Your task to perform on an android device: clear all cookies in the chrome app Image 0: 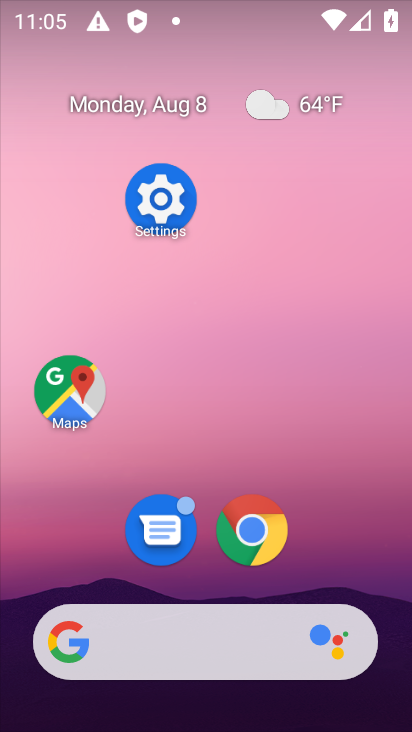
Step 0: drag from (272, 610) to (181, 1)
Your task to perform on an android device: clear all cookies in the chrome app Image 1: 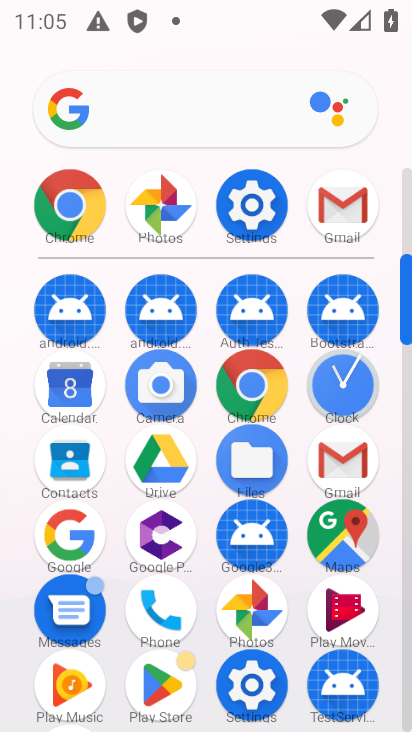
Step 1: click (56, 210)
Your task to perform on an android device: clear all cookies in the chrome app Image 2: 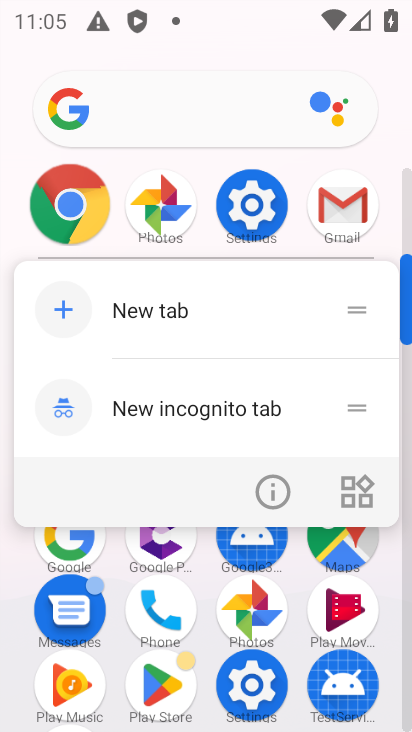
Step 2: click (60, 216)
Your task to perform on an android device: clear all cookies in the chrome app Image 3: 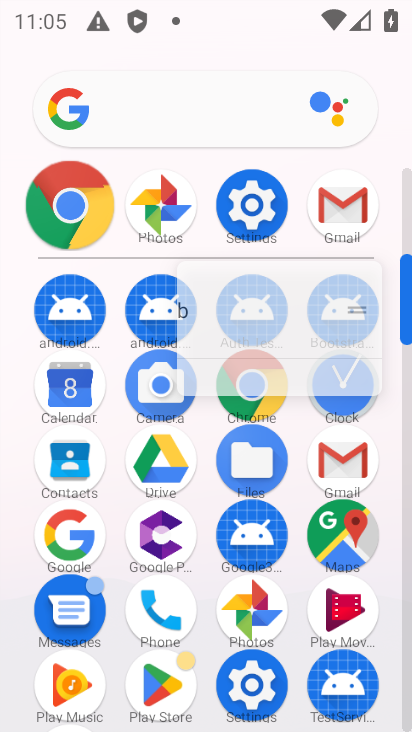
Step 3: click (70, 214)
Your task to perform on an android device: clear all cookies in the chrome app Image 4: 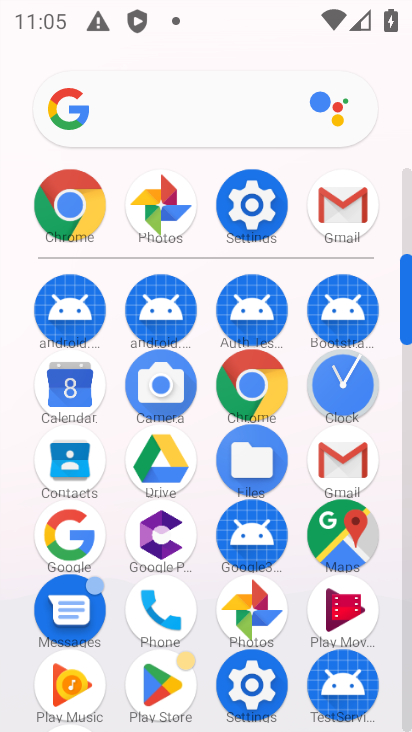
Step 4: click (73, 214)
Your task to perform on an android device: clear all cookies in the chrome app Image 5: 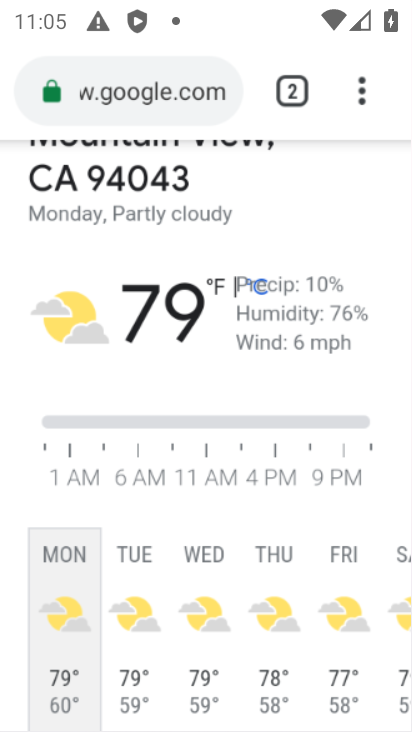
Step 5: click (68, 221)
Your task to perform on an android device: clear all cookies in the chrome app Image 6: 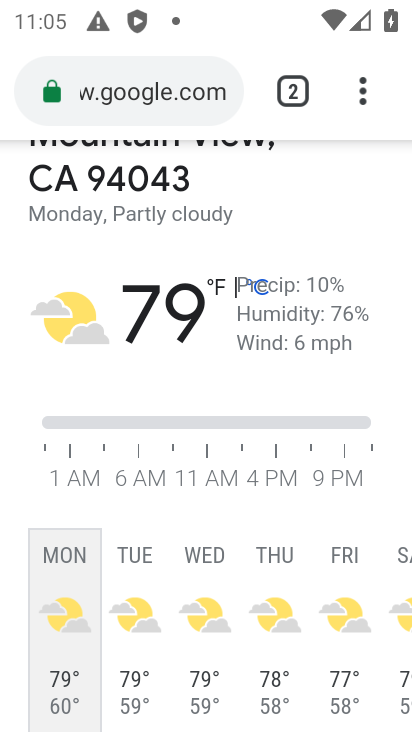
Step 6: press back button
Your task to perform on an android device: clear all cookies in the chrome app Image 7: 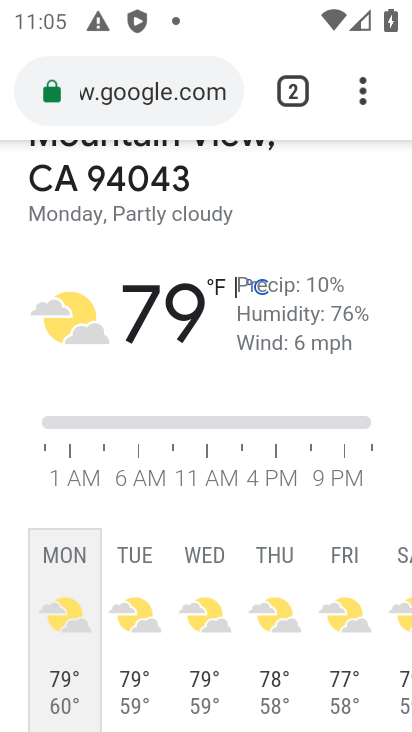
Step 7: press back button
Your task to perform on an android device: clear all cookies in the chrome app Image 8: 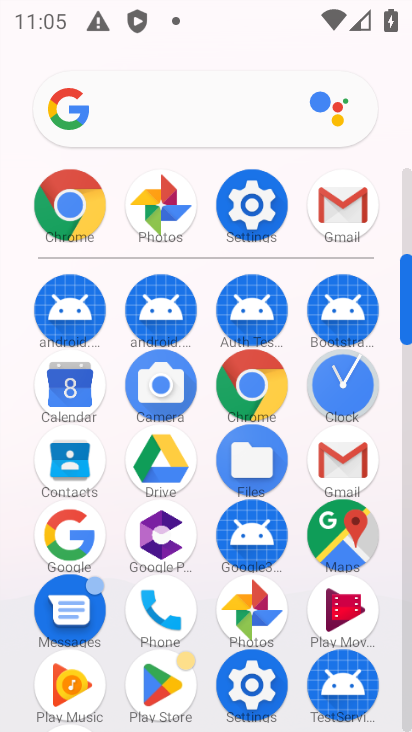
Step 8: click (68, 191)
Your task to perform on an android device: clear all cookies in the chrome app Image 9: 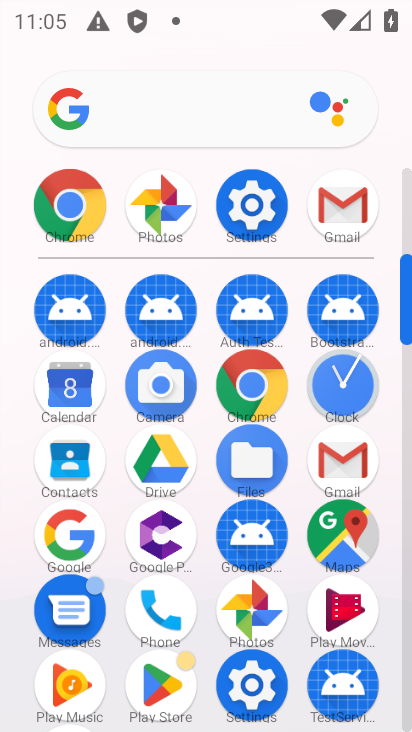
Step 9: click (68, 198)
Your task to perform on an android device: clear all cookies in the chrome app Image 10: 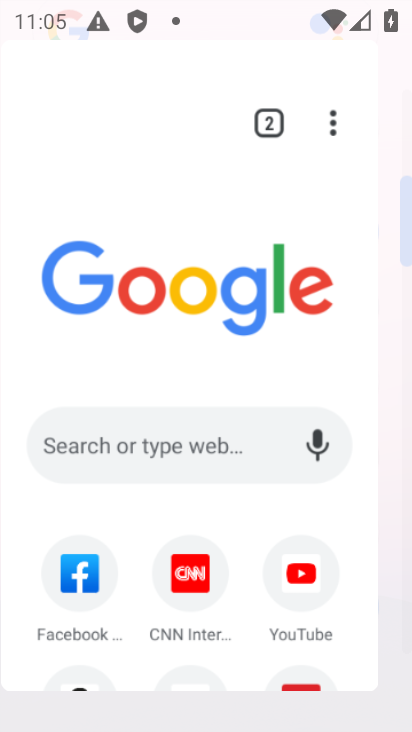
Step 10: click (68, 198)
Your task to perform on an android device: clear all cookies in the chrome app Image 11: 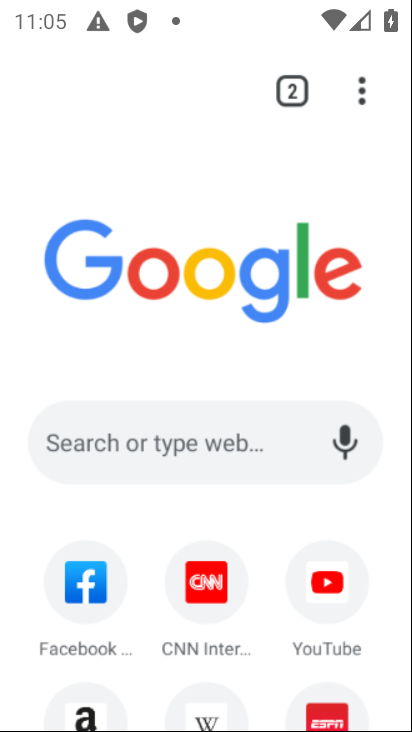
Step 11: click (73, 200)
Your task to perform on an android device: clear all cookies in the chrome app Image 12: 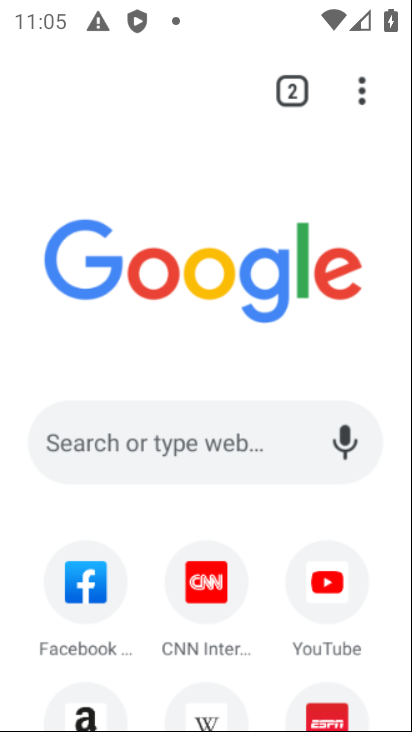
Step 12: click (78, 201)
Your task to perform on an android device: clear all cookies in the chrome app Image 13: 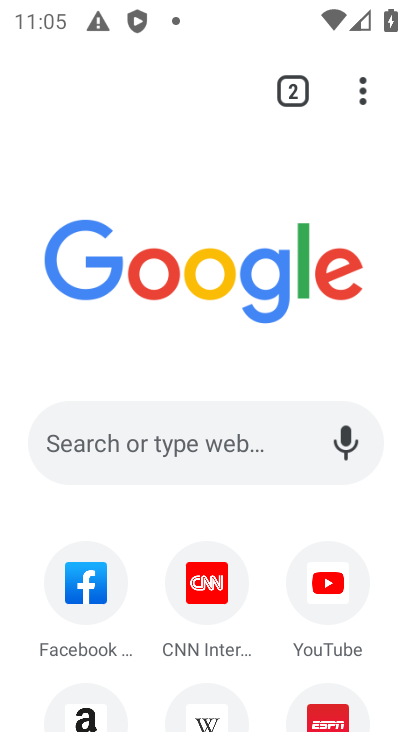
Step 13: click (80, 441)
Your task to perform on an android device: clear all cookies in the chrome app Image 14: 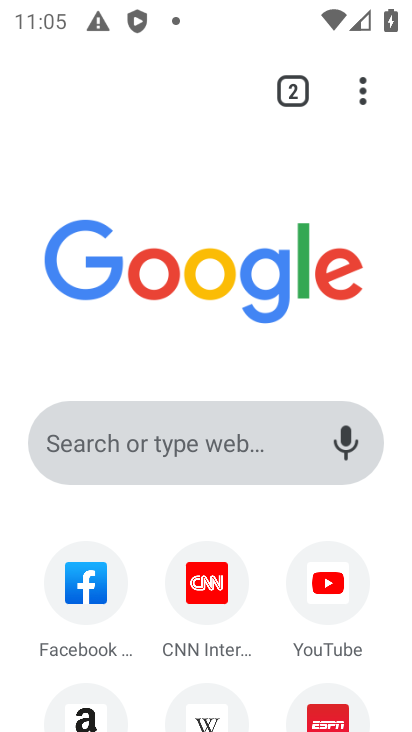
Step 14: click (80, 441)
Your task to perform on an android device: clear all cookies in the chrome app Image 15: 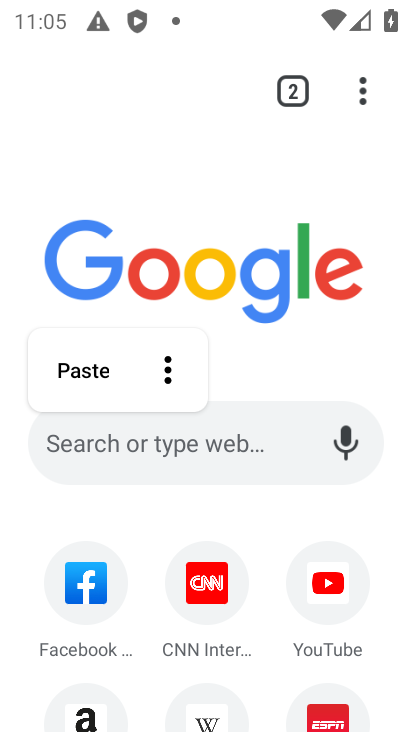
Step 15: drag from (354, 106) to (71, 576)
Your task to perform on an android device: clear all cookies in the chrome app Image 16: 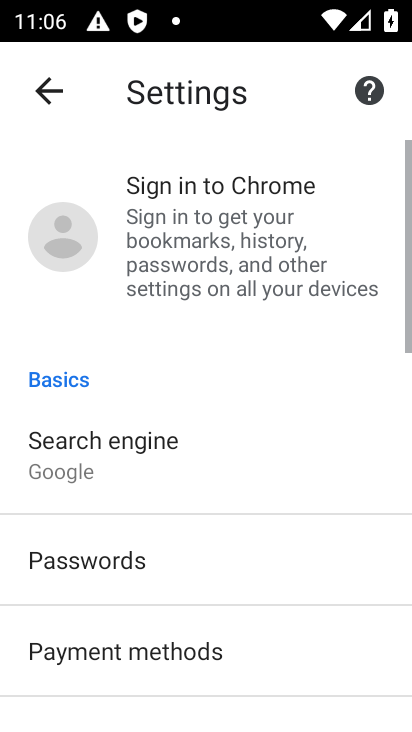
Step 16: drag from (217, 600) to (121, 75)
Your task to perform on an android device: clear all cookies in the chrome app Image 17: 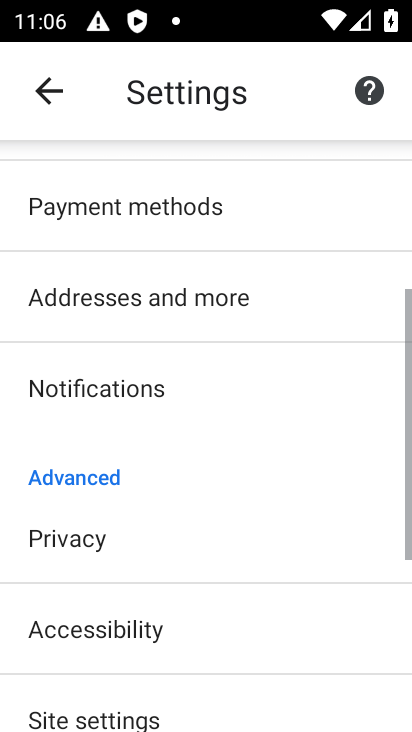
Step 17: drag from (213, 319) to (184, 110)
Your task to perform on an android device: clear all cookies in the chrome app Image 18: 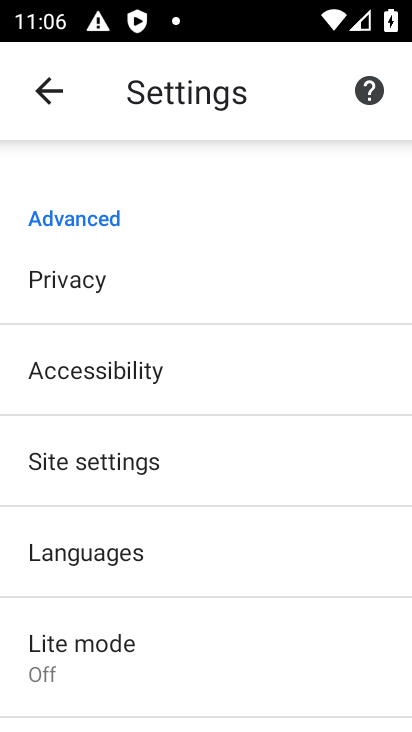
Step 18: drag from (173, 271) to (181, 541)
Your task to perform on an android device: clear all cookies in the chrome app Image 19: 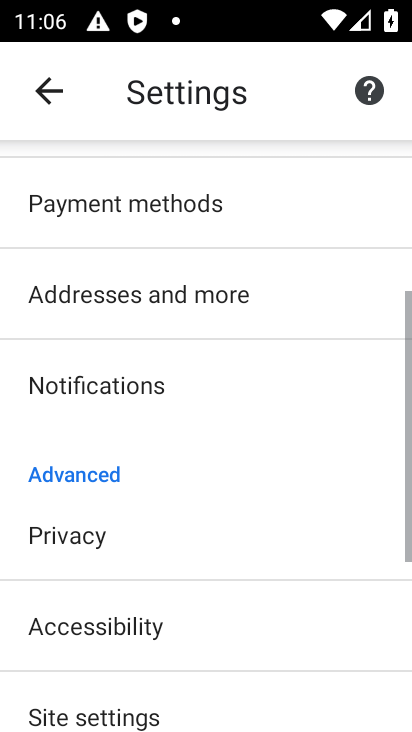
Step 19: drag from (138, 247) to (124, 597)
Your task to perform on an android device: clear all cookies in the chrome app Image 20: 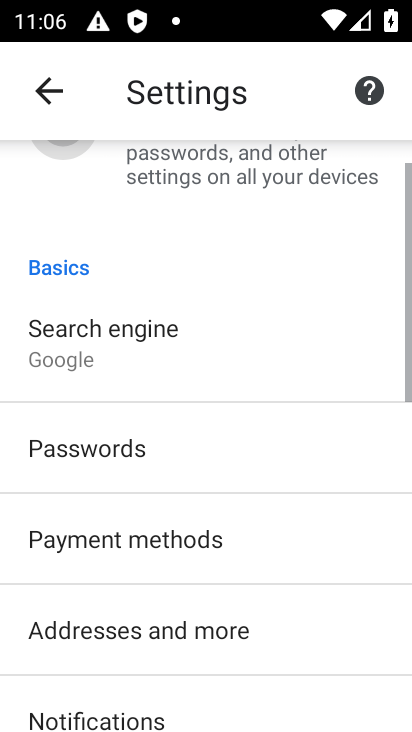
Step 20: drag from (116, 314) to (138, 527)
Your task to perform on an android device: clear all cookies in the chrome app Image 21: 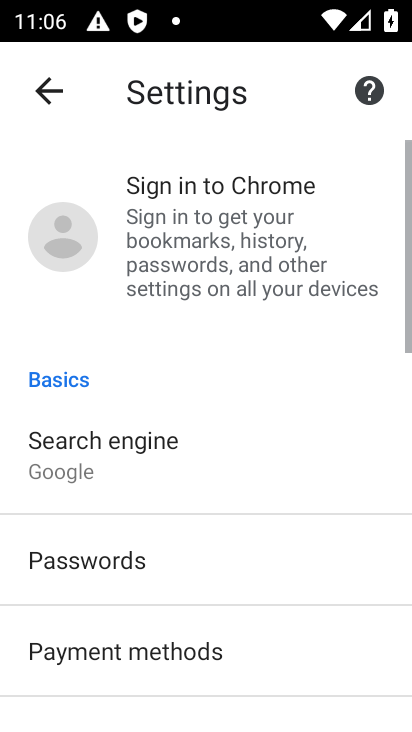
Step 21: drag from (122, 262) to (139, 509)
Your task to perform on an android device: clear all cookies in the chrome app Image 22: 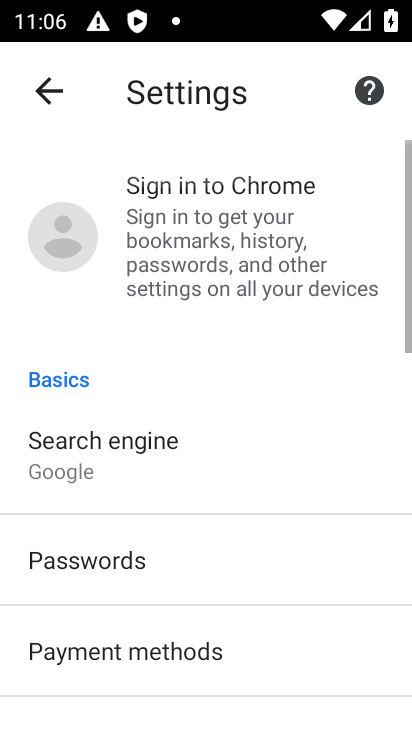
Step 22: drag from (142, 355) to (148, 514)
Your task to perform on an android device: clear all cookies in the chrome app Image 23: 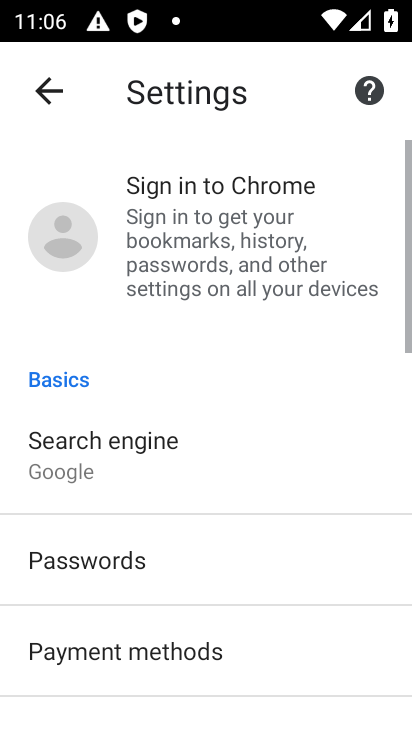
Step 23: drag from (201, 543) to (168, 206)
Your task to perform on an android device: clear all cookies in the chrome app Image 24: 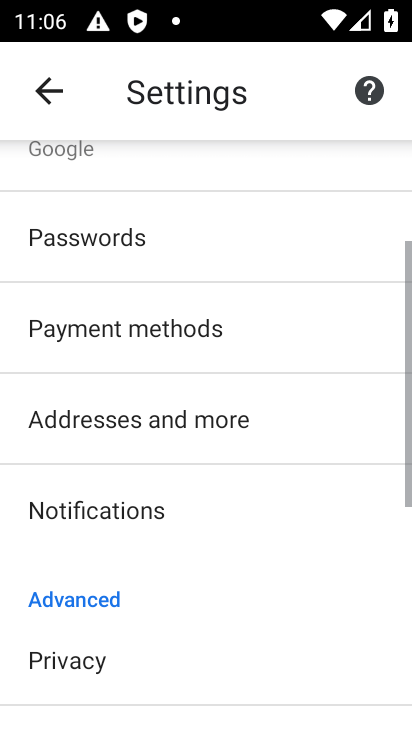
Step 24: drag from (217, 469) to (212, 133)
Your task to perform on an android device: clear all cookies in the chrome app Image 25: 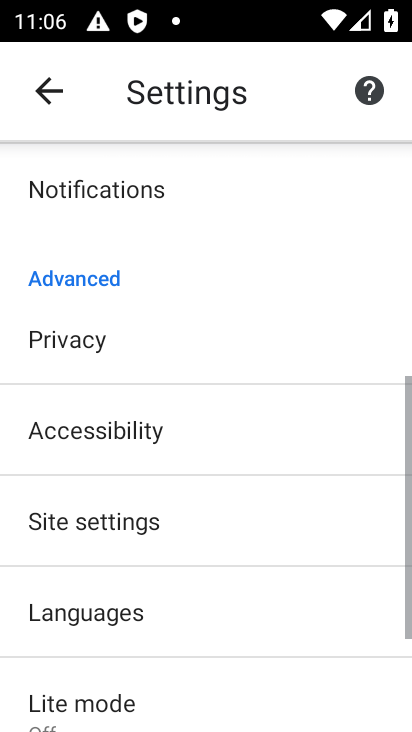
Step 25: drag from (213, 409) to (185, 114)
Your task to perform on an android device: clear all cookies in the chrome app Image 26: 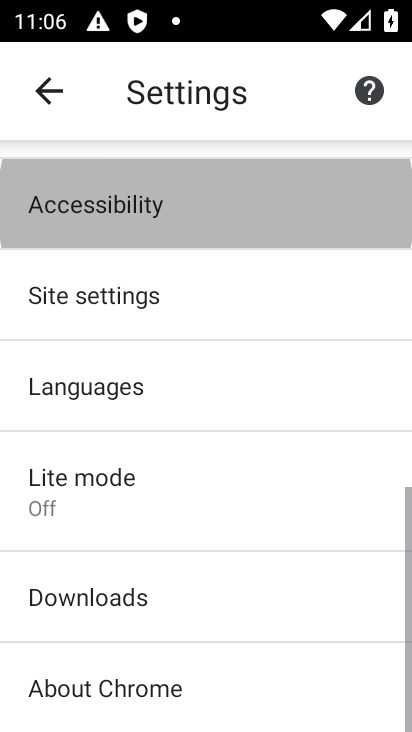
Step 26: drag from (216, 290) to (209, 114)
Your task to perform on an android device: clear all cookies in the chrome app Image 27: 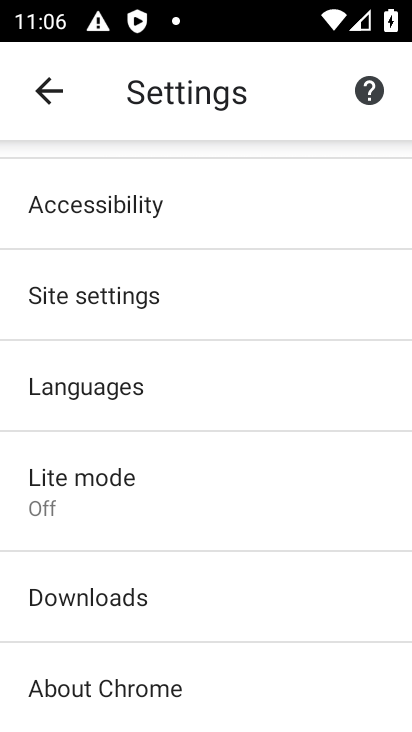
Step 27: click (79, 303)
Your task to perform on an android device: clear all cookies in the chrome app Image 28: 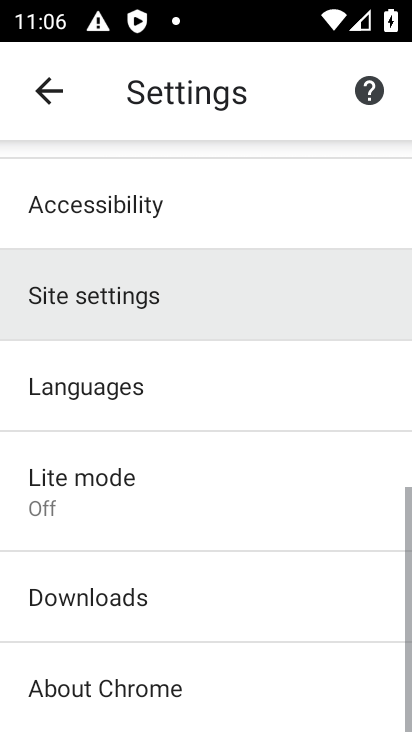
Step 28: click (123, 289)
Your task to perform on an android device: clear all cookies in the chrome app Image 29: 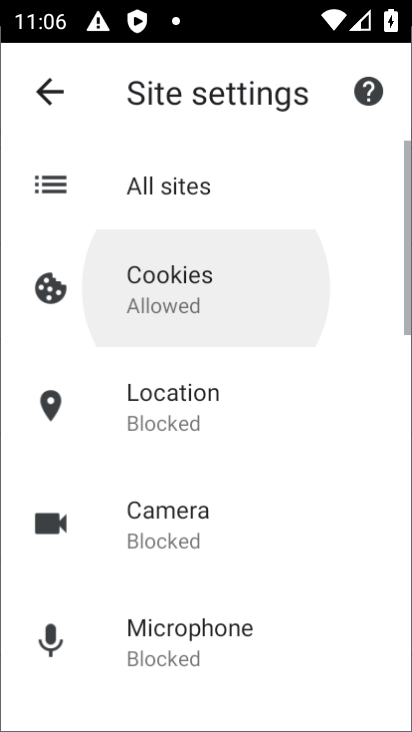
Step 29: click (126, 292)
Your task to perform on an android device: clear all cookies in the chrome app Image 30: 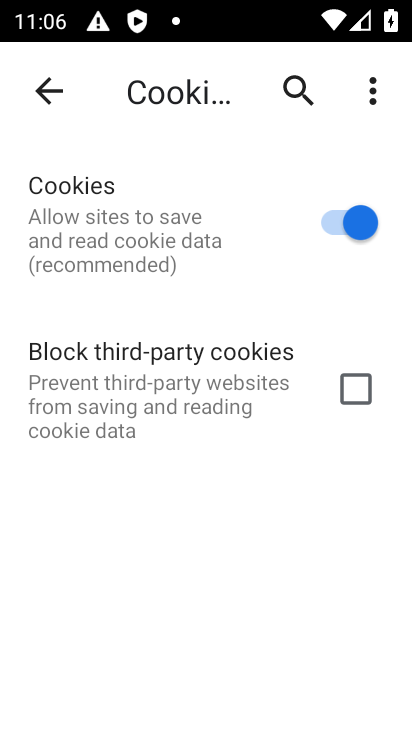
Step 30: click (363, 227)
Your task to perform on an android device: clear all cookies in the chrome app Image 31: 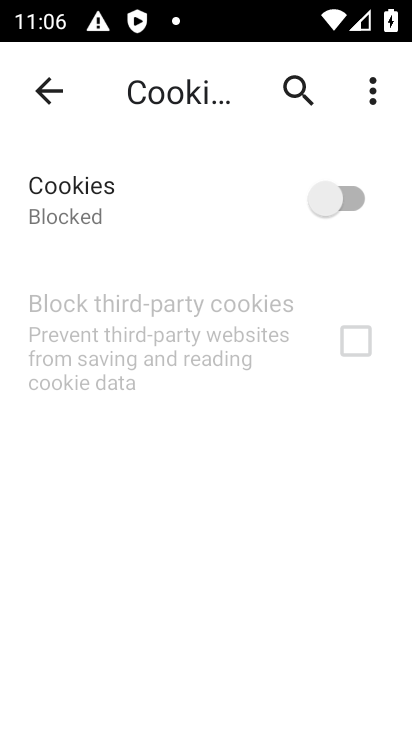
Step 31: task complete